Your task to perform on an android device: Open ESPN.com Image 0: 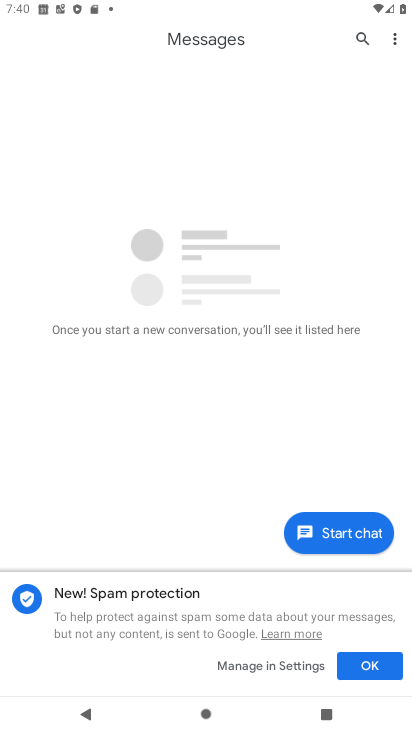
Step 0: press home button
Your task to perform on an android device: Open ESPN.com Image 1: 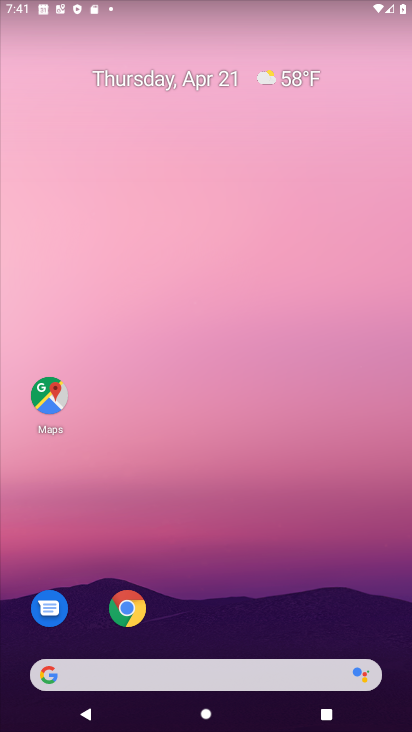
Step 1: click (300, 679)
Your task to perform on an android device: Open ESPN.com Image 2: 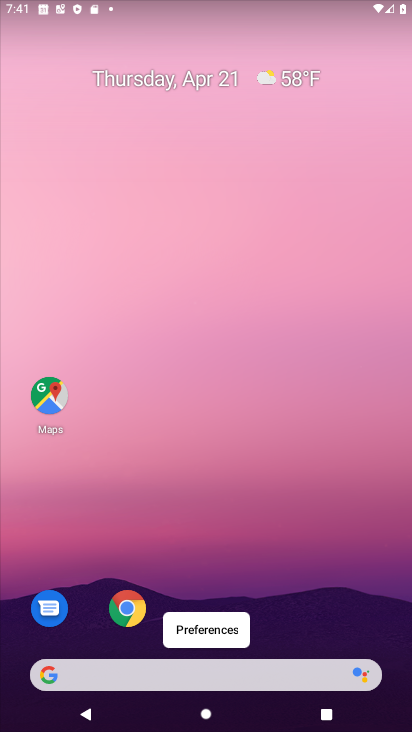
Step 2: click (300, 679)
Your task to perform on an android device: Open ESPN.com Image 3: 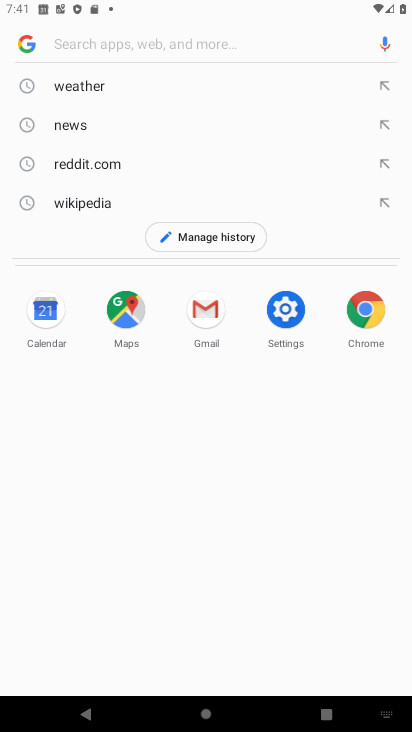
Step 3: type "espn.com"
Your task to perform on an android device: Open ESPN.com Image 4: 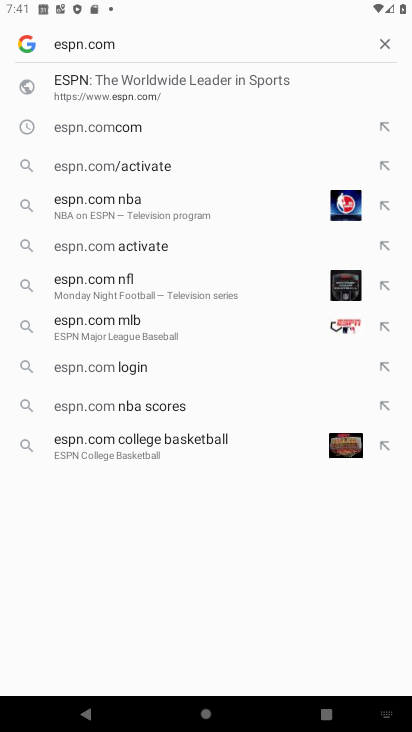
Step 4: click (191, 76)
Your task to perform on an android device: Open ESPN.com Image 5: 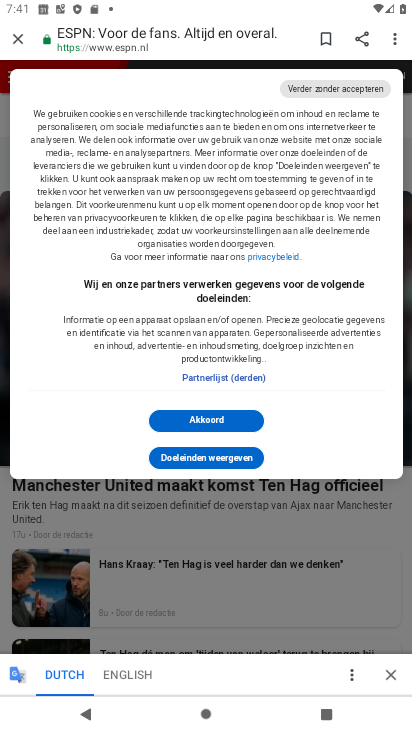
Step 5: task complete